Your task to perform on an android device: Open calendar and show me the first week of next month Image 0: 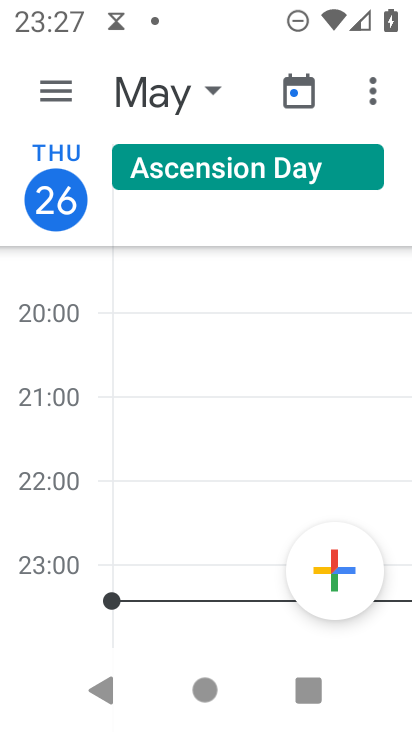
Step 0: click (168, 87)
Your task to perform on an android device: Open calendar and show me the first week of next month Image 1: 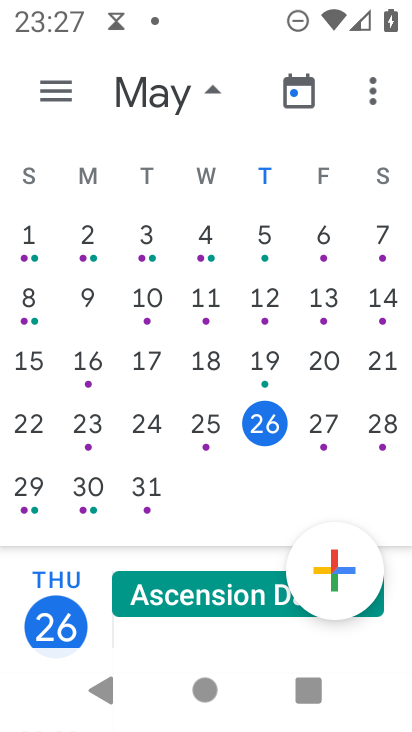
Step 1: drag from (368, 331) to (0, 370)
Your task to perform on an android device: Open calendar and show me the first week of next month Image 2: 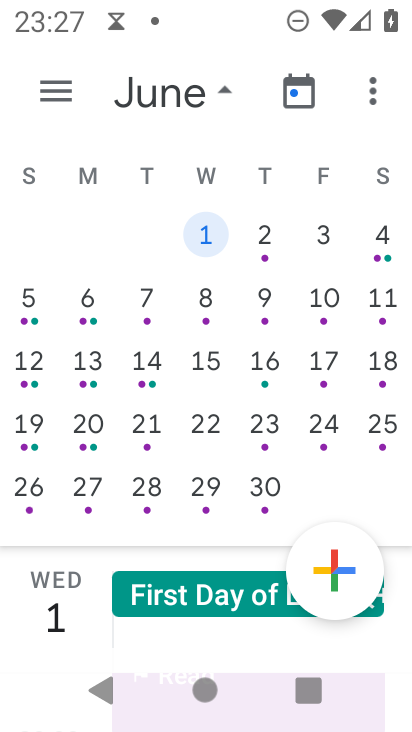
Step 2: click (93, 487)
Your task to perform on an android device: Open calendar and show me the first week of next month Image 3: 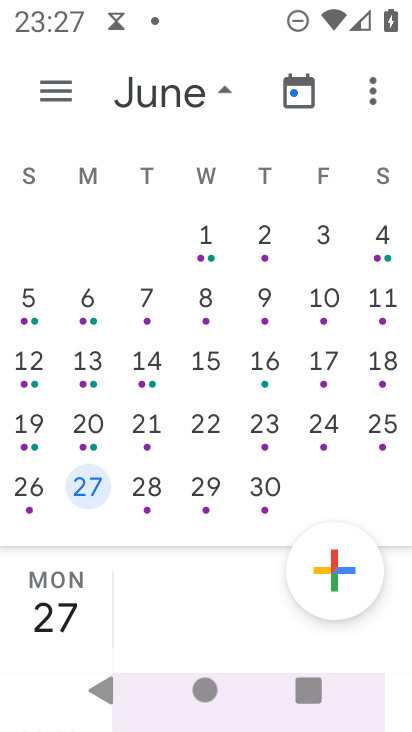
Step 3: click (57, 95)
Your task to perform on an android device: Open calendar and show me the first week of next month Image 4: 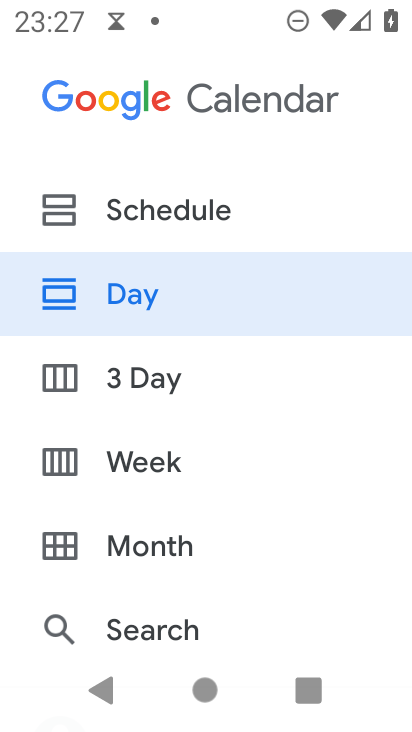
Step 4: click (148, 457)
Your task to perform on an android device: Open calendar and show me the first week of next month Image 5: 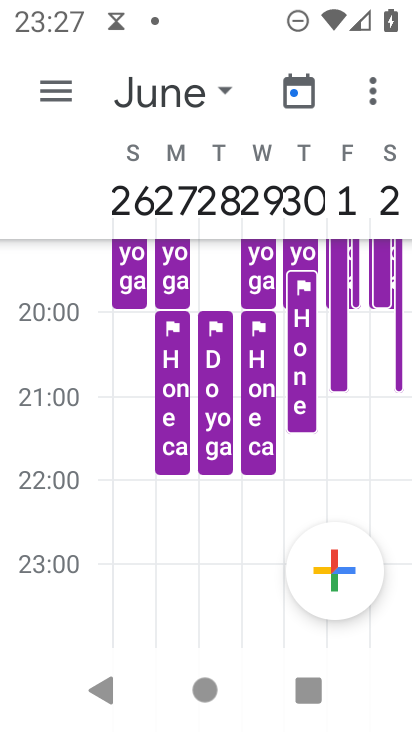
Step 5: task complete